Your task to perform on an android device: Go to internet settings Image 0: 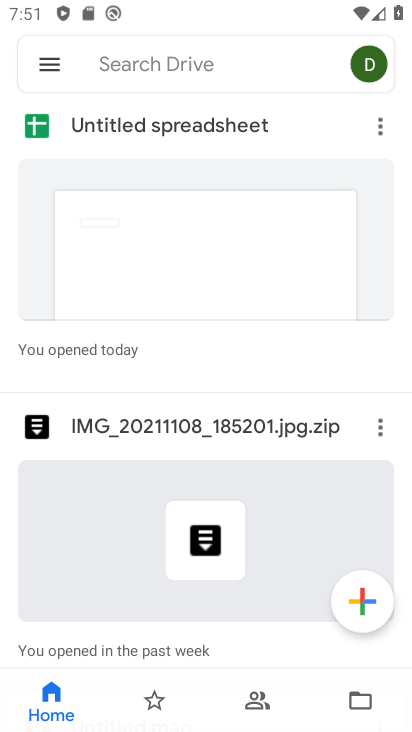
Step 0: press home button
Your task to perform on an android device: Go to internet settings Image 1: 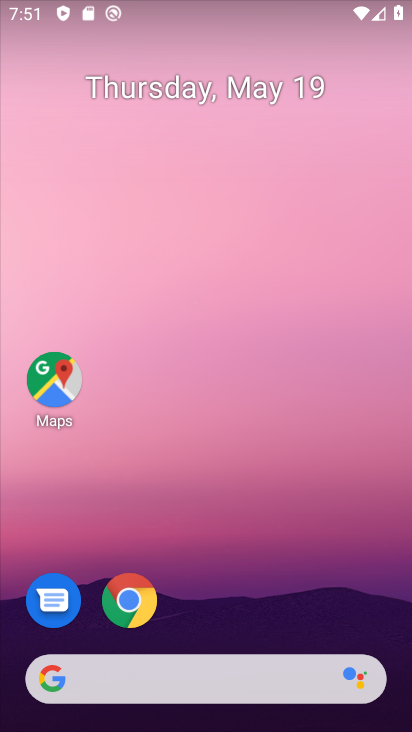
Step 1: drag from (232, 614) to (244, 6)
Your task to perform on an android device: Go to internet settings Image 2: 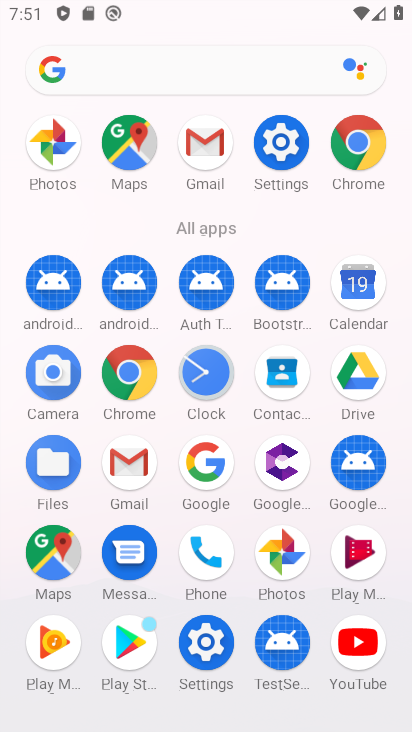
Step 2: click (281, 141)
Your task to perform on an android device: Go to internet settings Image 3: 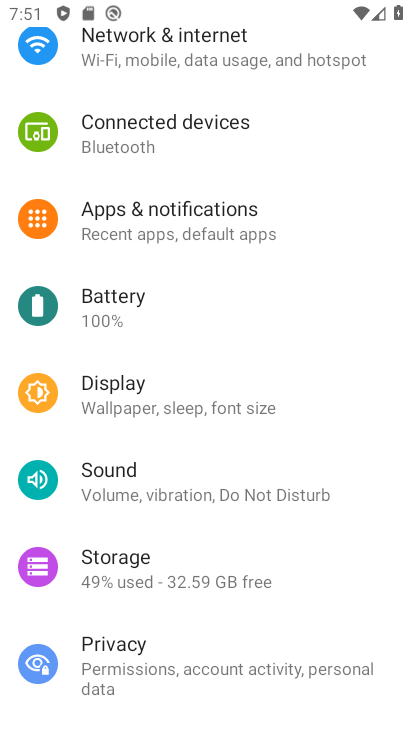
Step 3: click (169, 60)
Your task to perform on an android device: Go to internet settings Image 4: 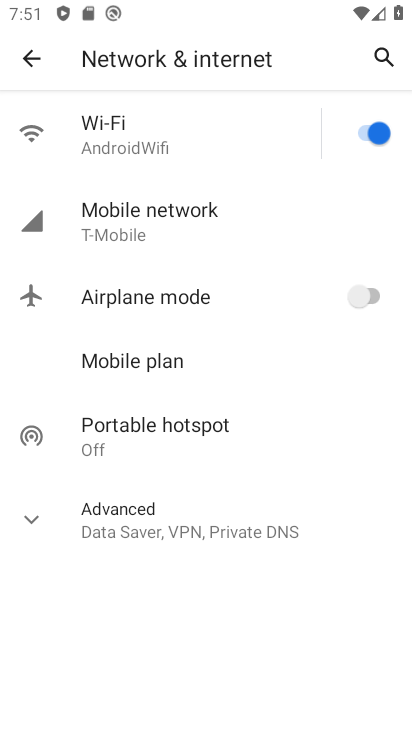
Step 4: task complete